Your task to perform on an android device: open chrome privacy settings Image 0: 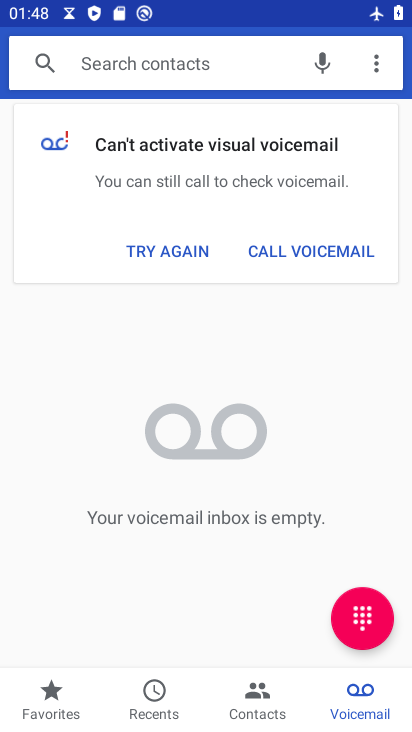
Step 0: press home button
Your task to perform on an android device: open chrome privacy settings Image 1: 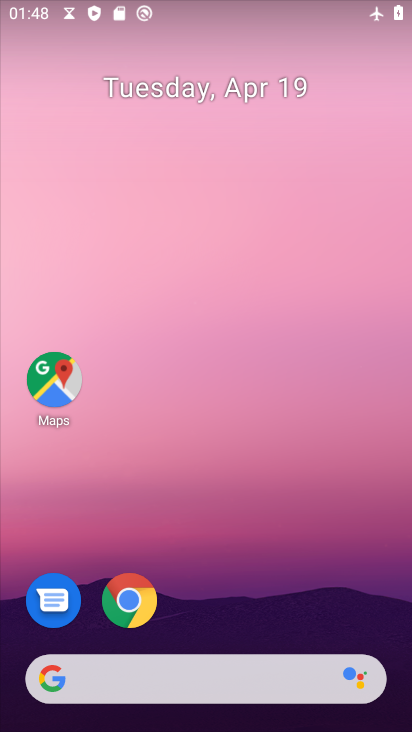
Step 1: drag from (214, 610) to (128, 0)
Your task to perform on an android device: open chrome privacy settings Image 2: 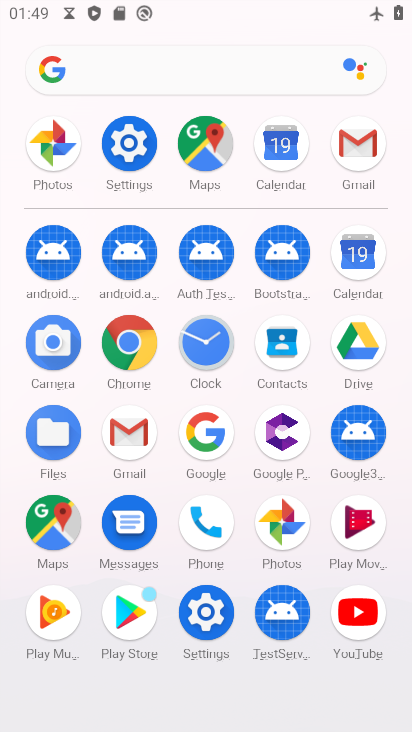
Step 2: click (129, 350)
Your task to perform on an android device: open chrome privacy settings Image 3: 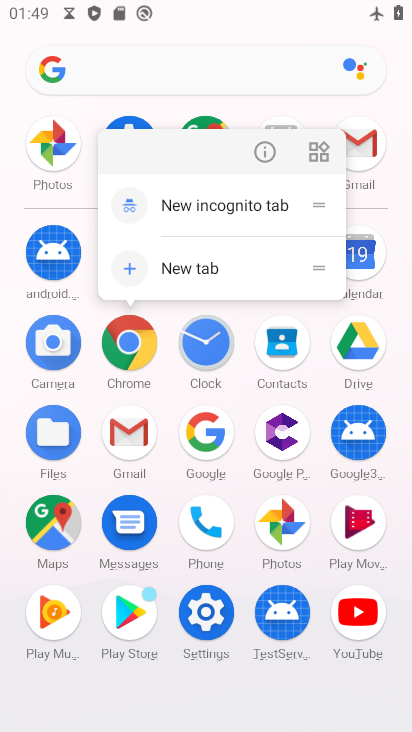
Step 3: click (129, 350)
Your task to perform on an android device: open chrome privacy settings Image 4: 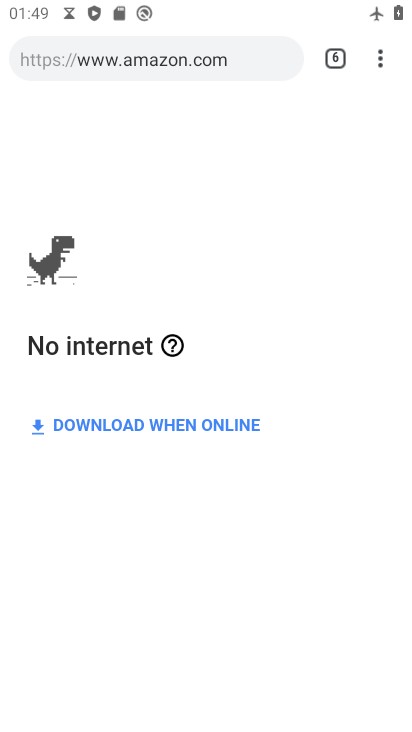
Step 4: click (380, 50)
Your task to perform on an android device: open chrome privacy settings Image 5: 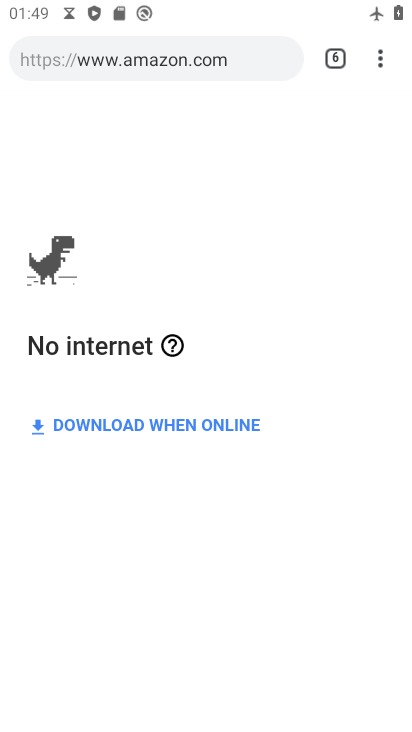
Step 5: click (379, 50)
Your task to perform on an android device: open chrome privacy settings Image 6: 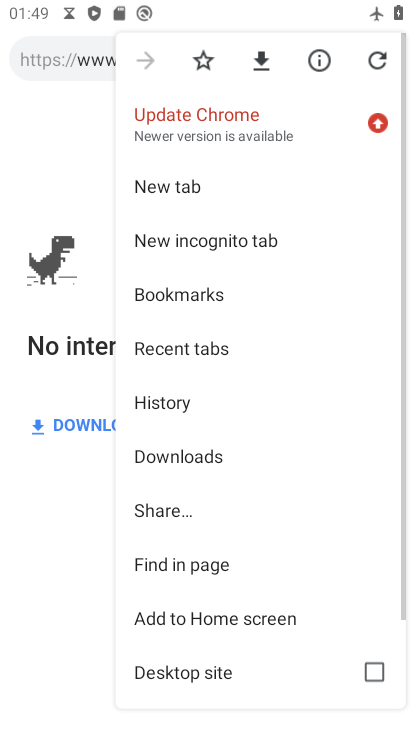
Step 6: drag from (292, 550) to (234, 135)
Your task to perform on an android device: open chrome privacy settings Image 7: 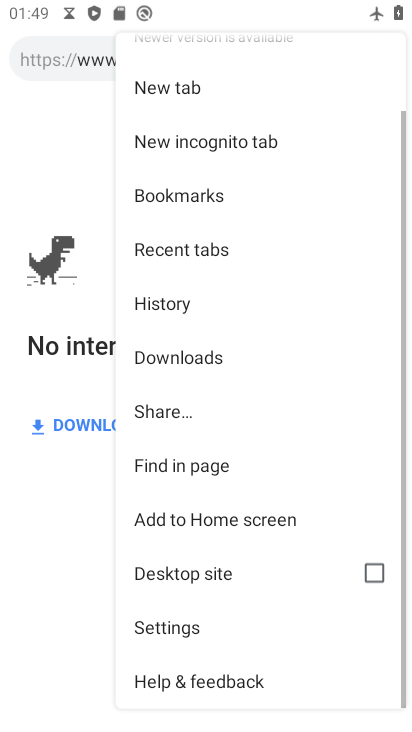
Step 7: click (175, 619)
Your task to perform on an android device: open chrome privacy settings Image 8: 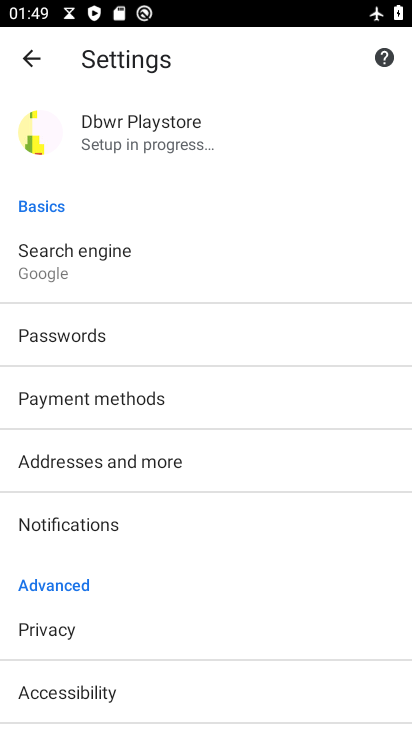
Step 8: click (97, 630)
Your task to perform on an android device: open chrome privacy settings Image 9: 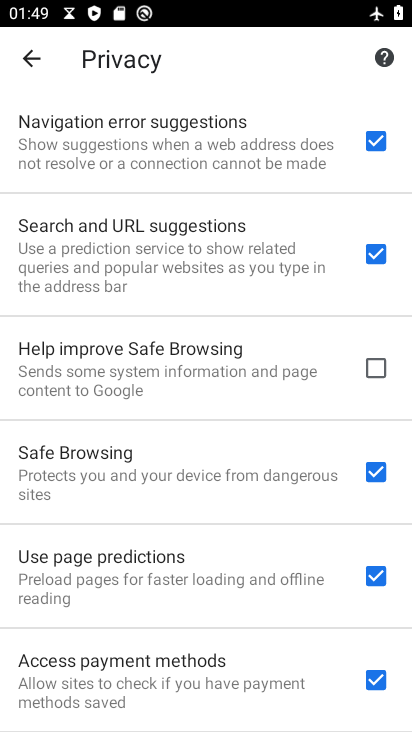
Step 9: task complete